Your task to perform on an android device: set default search engine in the chrome app Image 0: 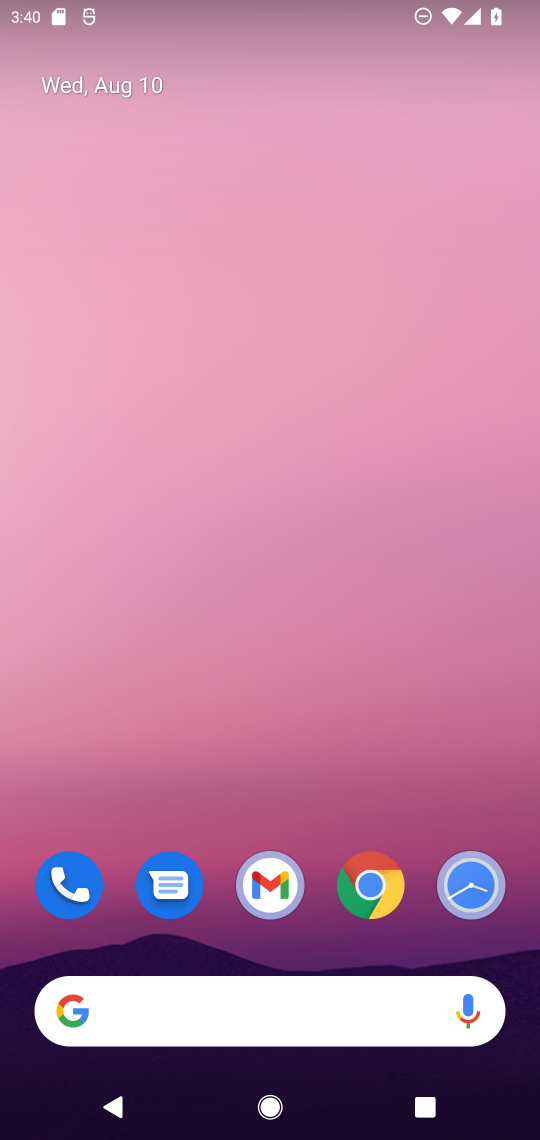
Step 0: click (371, 890)
Your task to perform on an android device: set default search engine in the chrome app Image 1: 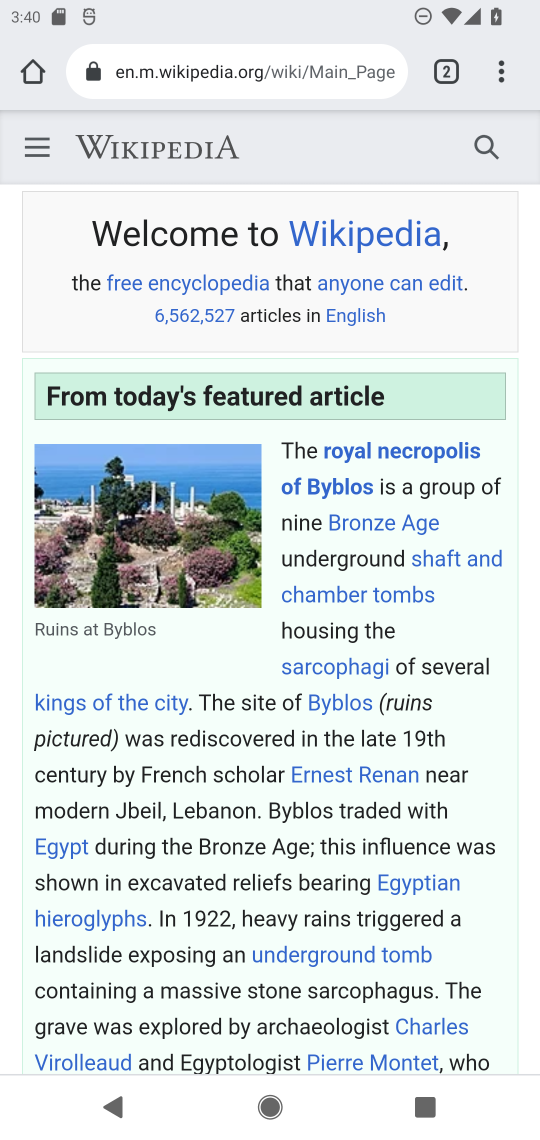
Step 1: click (446, 267)
Your task to perform on an android device: set default search engine in the chrome app Image 2: 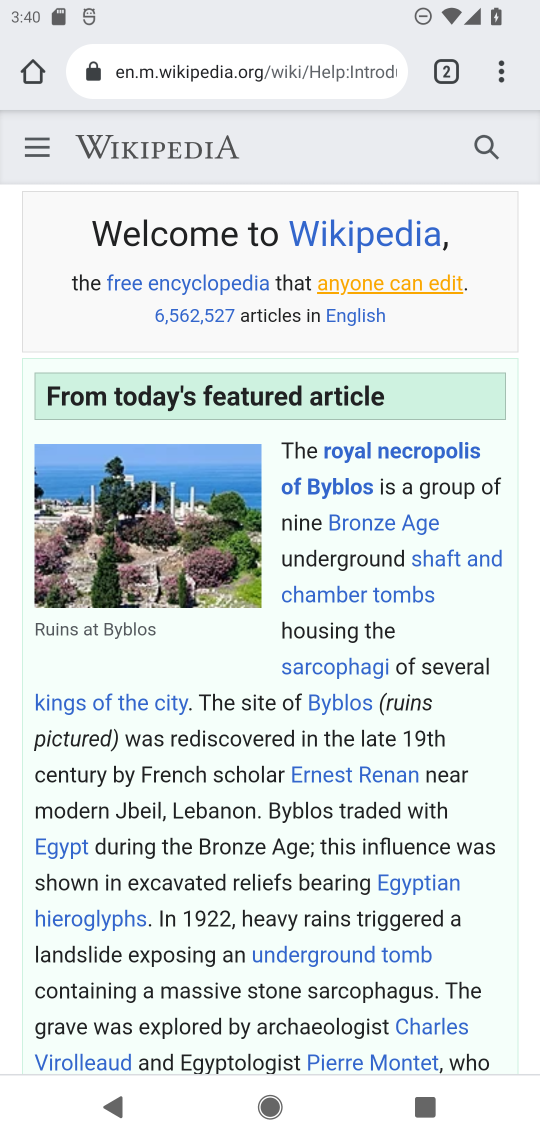
Step 2: click (499, 84)
Your task to perform on an android device: set default search engine in the chrome app Image 3: 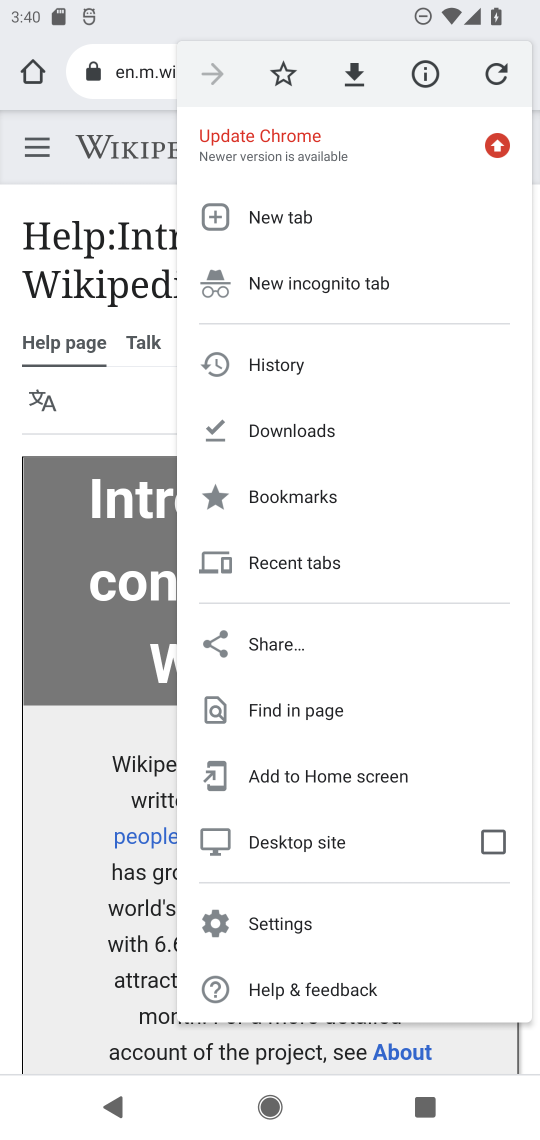
Step 3: click (277, 922)
Your task to perform on an android device: set default search engine in the chrome app Image 4: 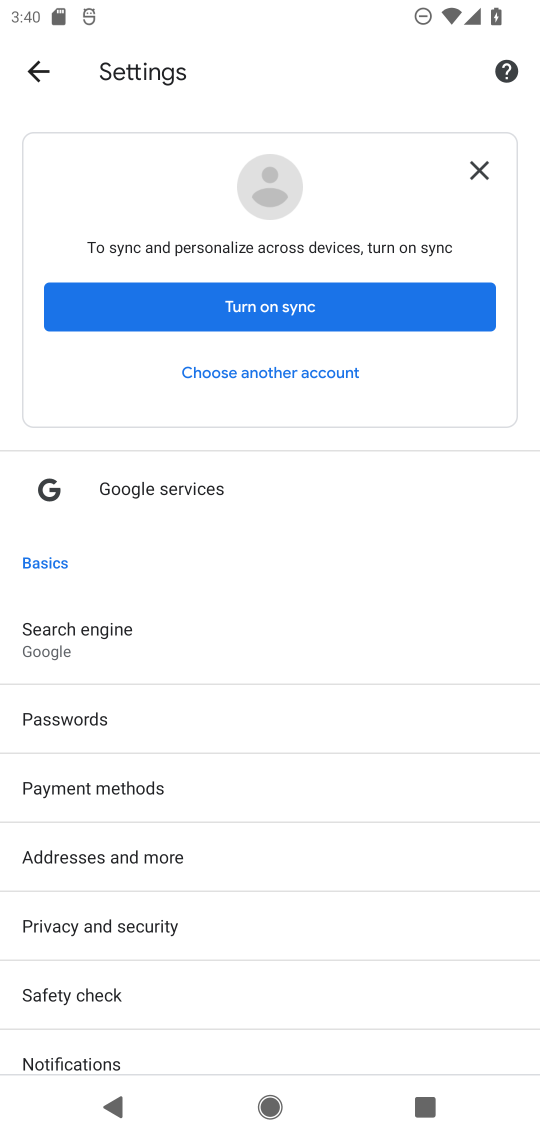
Step 4: click (97, 633)
Your task to perform on an android device: set default search engine in the chrome app Image 5: 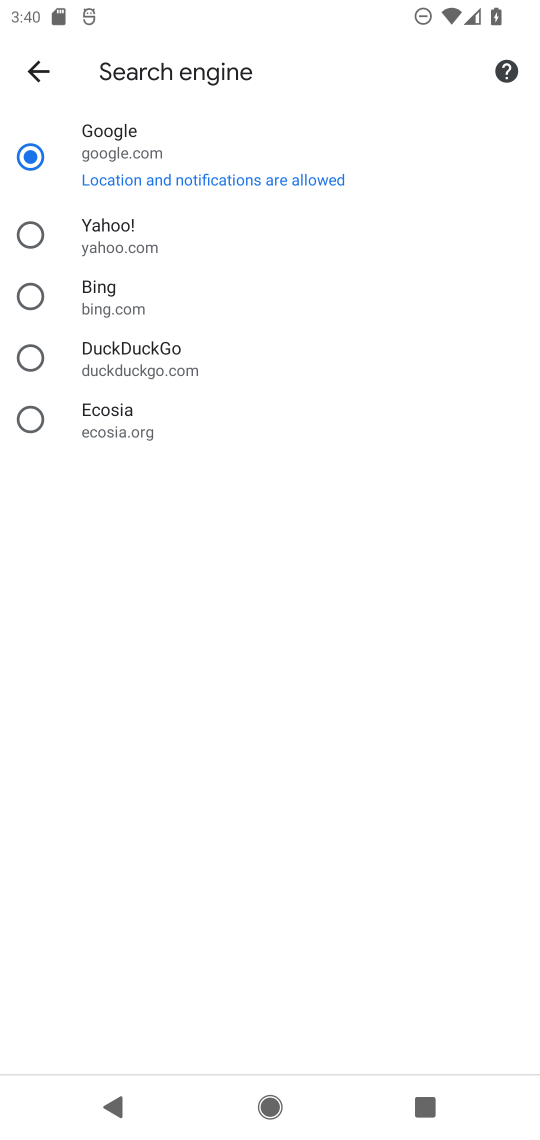
Step 5: task complete